Your task to perform on an android device: Open calendar and show me the second week of next month Image 0: 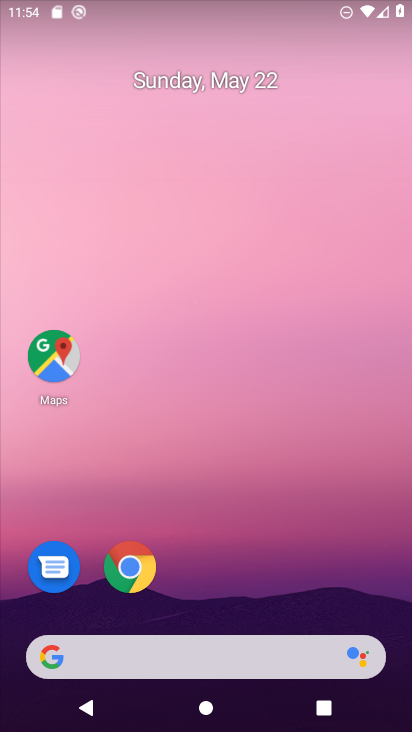
Step 0: click (187, 95)
Your task to perform on an android device: Open calendar and show me the second week of next month Image 1: 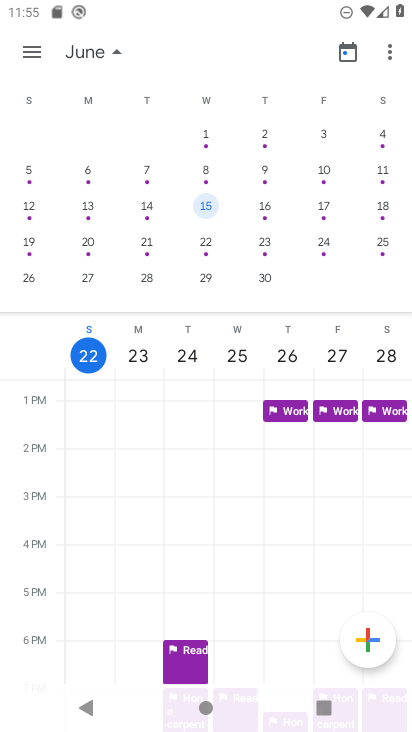
Step 1: click (209, 173)
Your task to perform on an android device: Open calendar and show me the second week of next month Image 2: 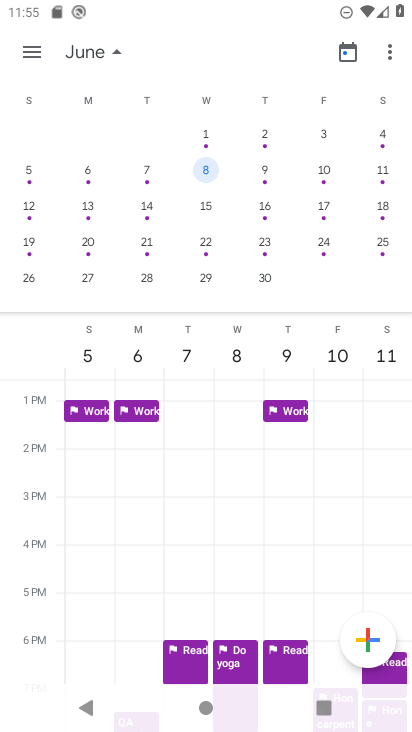
Step 2: task complete